Your task to perform on an android device: read, delete, or share a saved page in the chrome app Image 0: 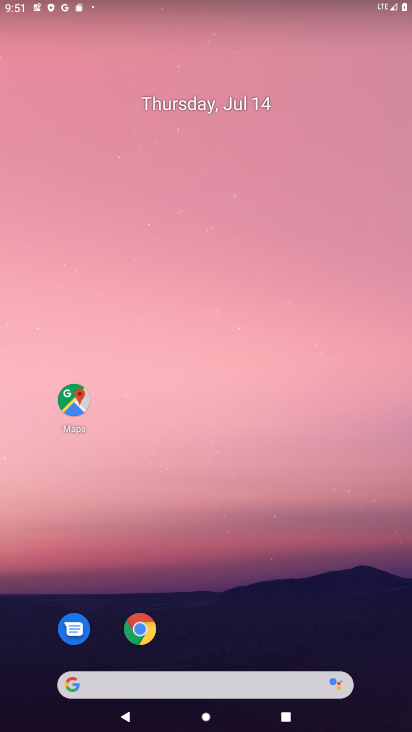
Step 0: click (140, 630)
Your task to perform on an android device: read, delete, or share a saved page in the chrome app Image 1: 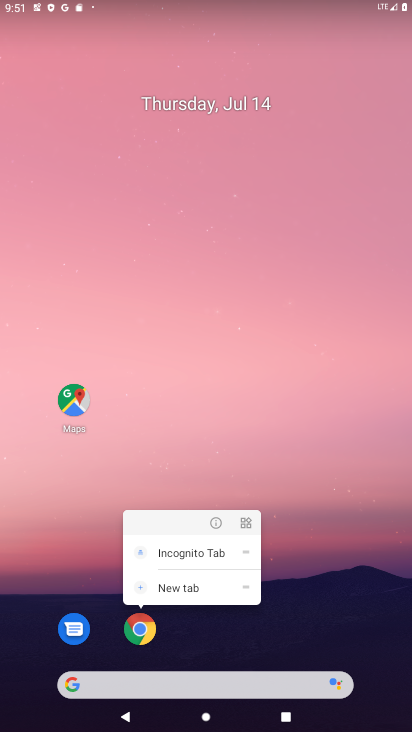
Step 1: click (148, 620)
Your task to perform on an android device: read, delete, or share a saved page in the chrome app Image 2: 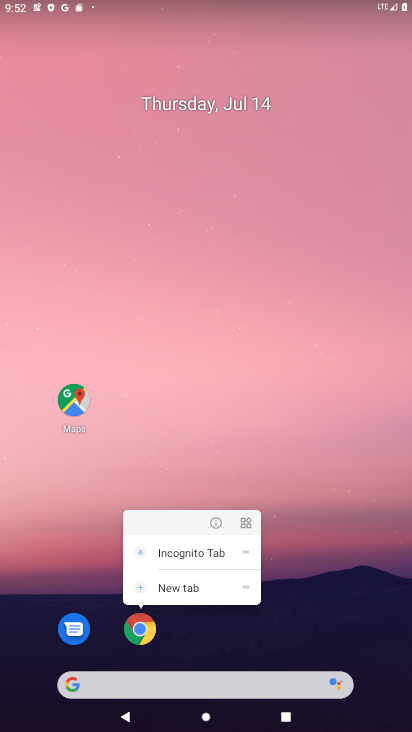
Step 2: click (141, 635)
Your task to perform on an android device: read, delete, or share a saved page in the chrome app Image 3: 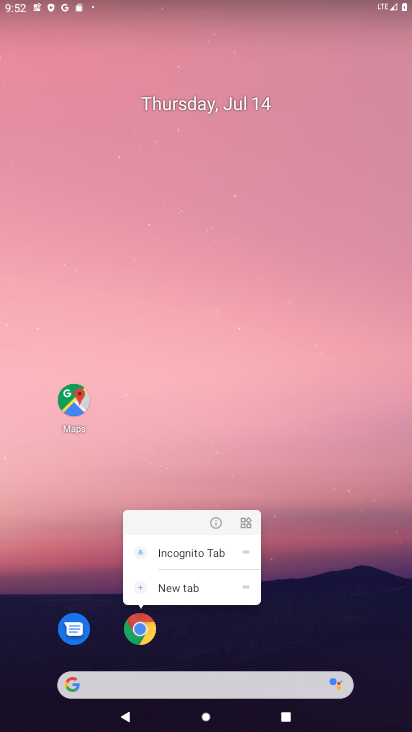
Step 3: click (143, 626)
Your task to perform on an android device: read, delete, or share a saved page in the chrome app Image 4: 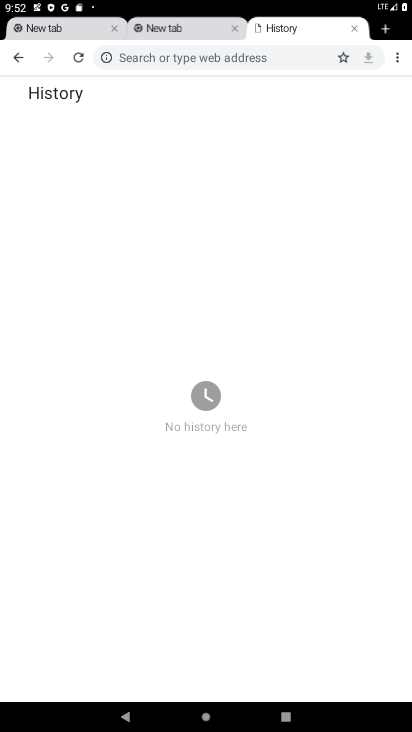
Step 4: click (24, 62)
Your task to perform on an android device: read, delete, or share a saved page in the chrome app Image 5: 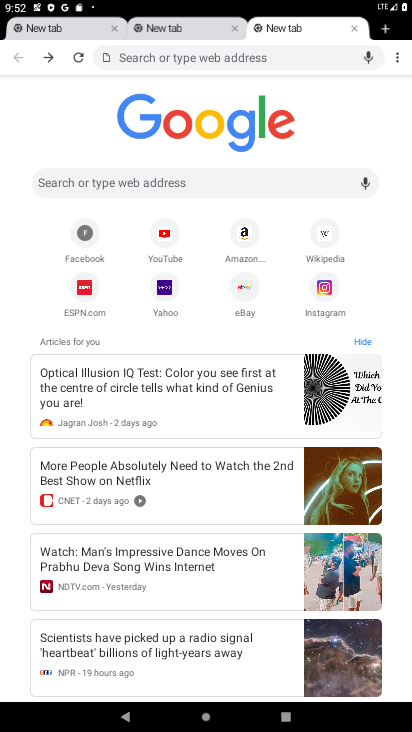
Step 5: click (332, 293)
Your task to perform on an android device: read, delete, or share a saved page in the chrome app Image 6: 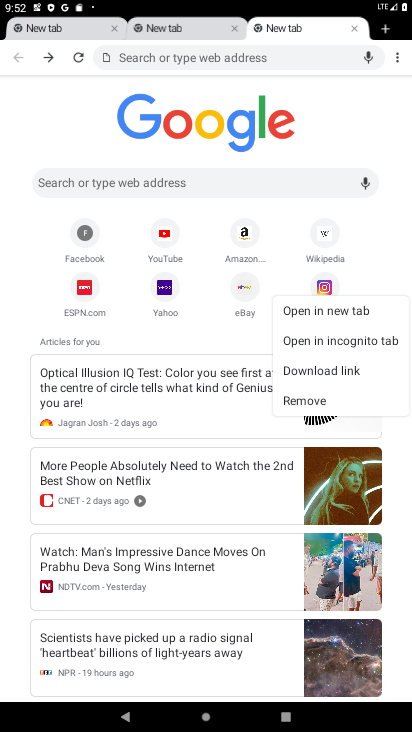
Step 6: click (307, 406)
Your task to perform on an android device: read, delete, or share a saved page in the chrome app Image 7: 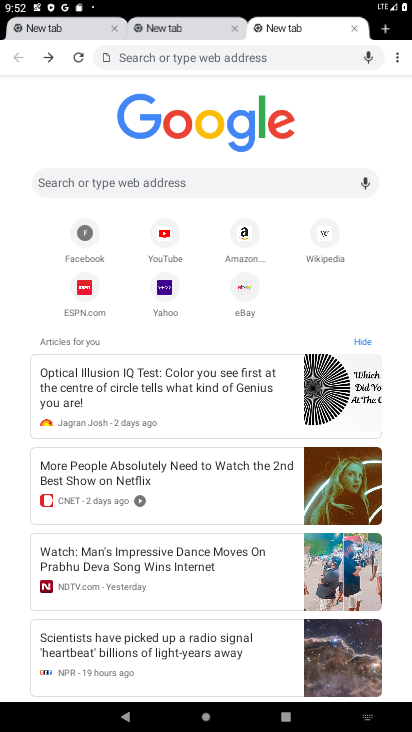
Step 7: task complete